Your task to perform on an android device: Is it going to rain tomorrow? Image 0: 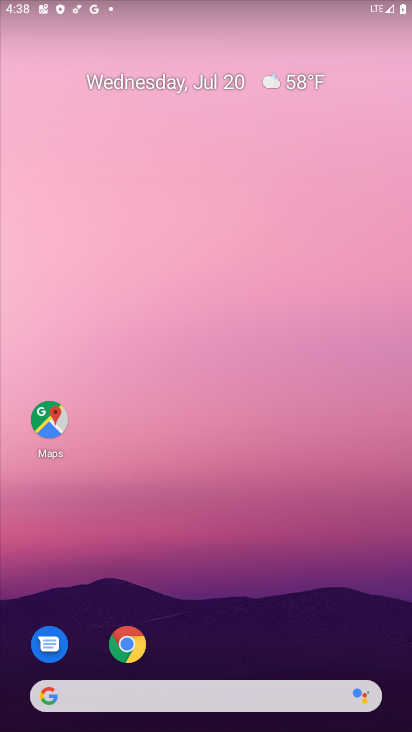
Step 0: press home button
Your task to perform on an android device: Is it going to rain tomorrow? Image 1: 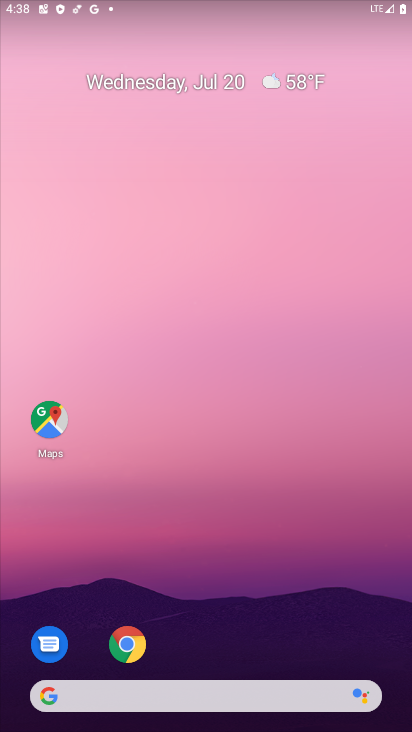
Step 1: click (53, 696)
Your task to perform on an android device: Is it going to rain tomorrow? Image 2: 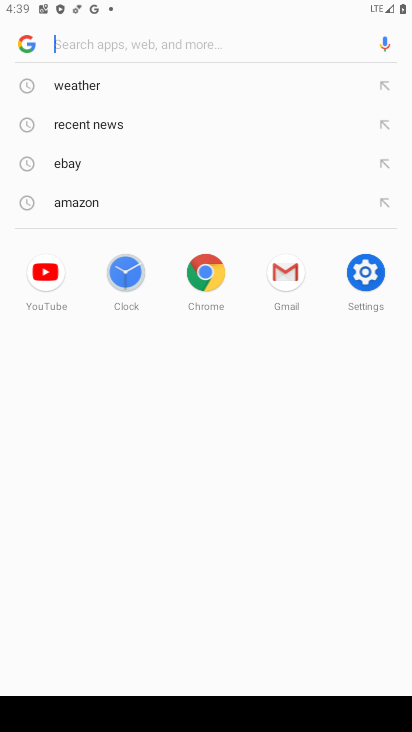
Step 2: type "rain tomorrow?"
Your task to perform on an android device: Is it going to rain tomorrow? Image 3: 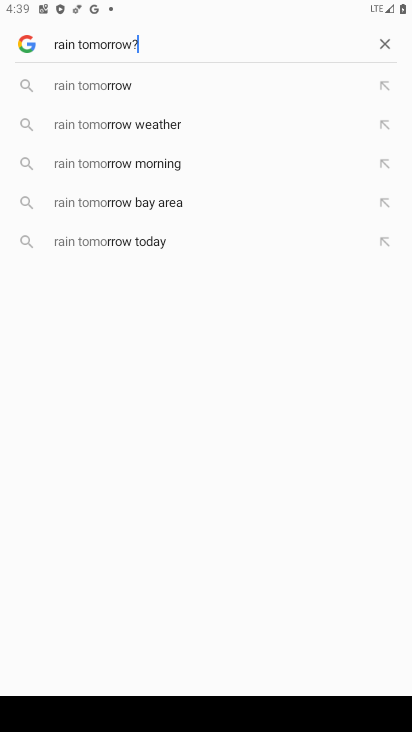
Step 3: press enter
Your task to perform on an android device: Is it going to rain tomorrow? Image 4: 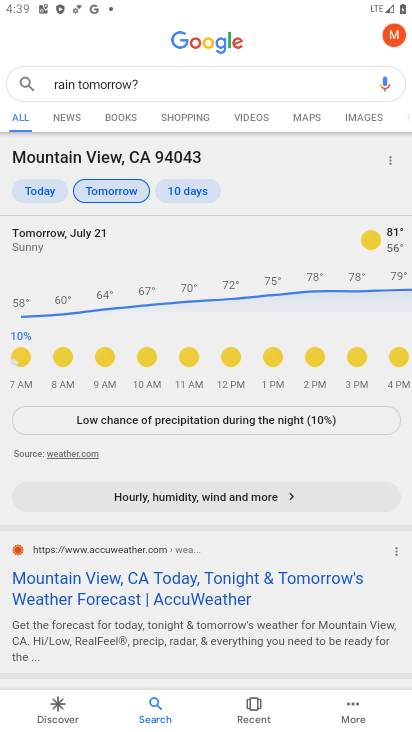
Step 4: task complete